Your task to perform on an android device: Open the map Image 0: 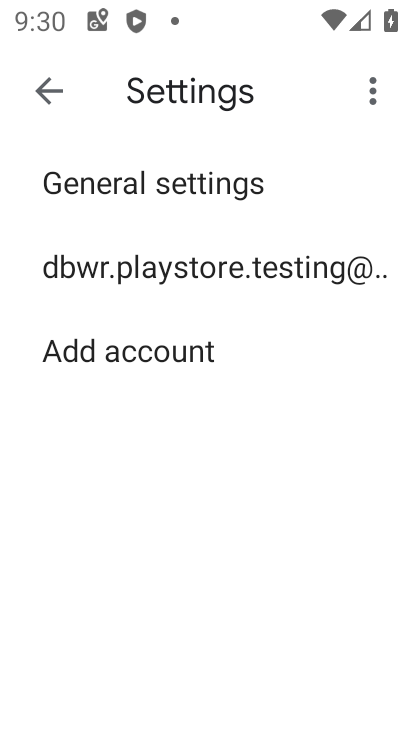
Step 0: press home button
Your task to perform on an android device: Open the map Image 1: 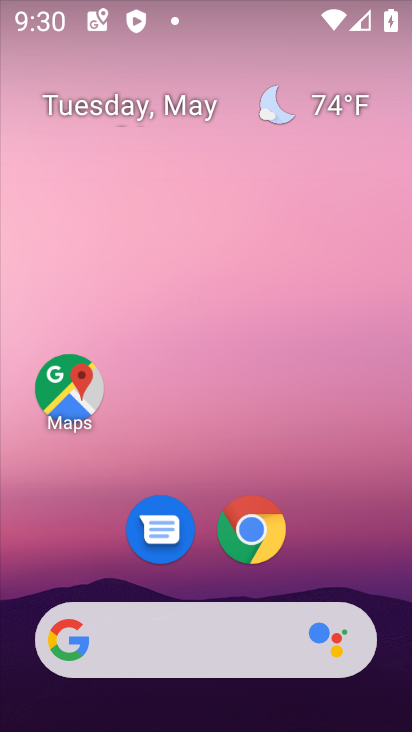
Step 1: click (67, 390)
Your task to perform on an android device: Open the map Image 2: 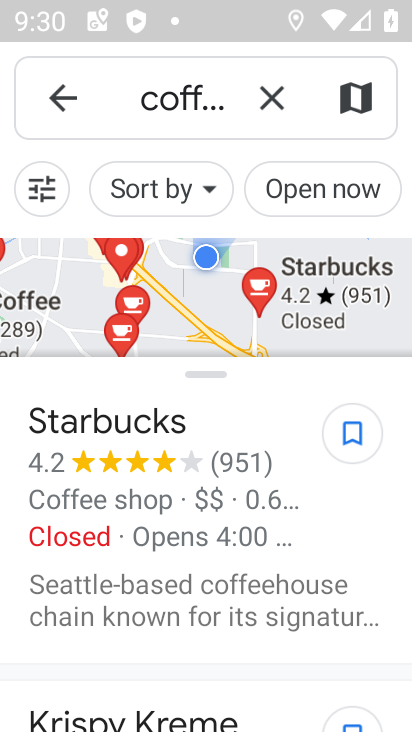
Step 2: task complete